Your task to perform on an android device: Open Google Maps and go to "Timeline" Image 0: 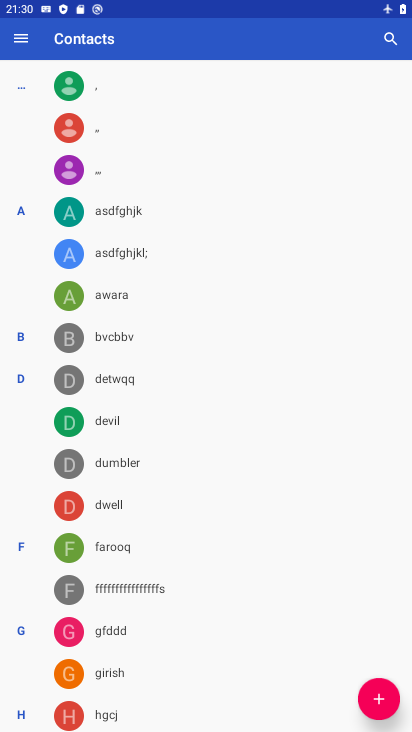
Step 0: press home button
Your task to perform on an android device: Open Google Maps and go to "Timeline" Image 1: 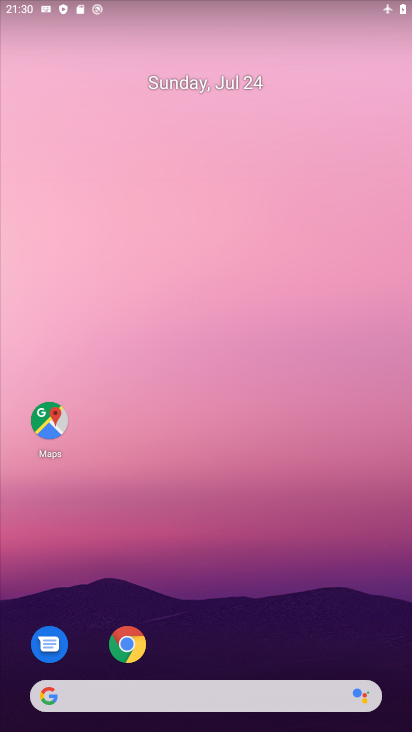
Step 1: click (50, 423)
Your task to perform on an android device: Open Google Maps and go to "Timeline" Image 2: 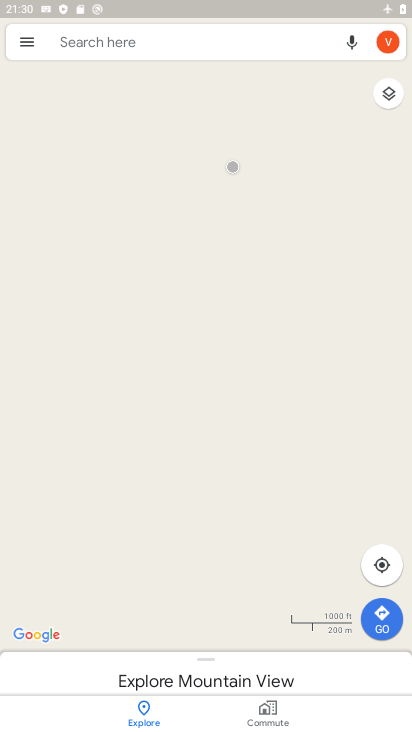
Step 2: click (28, 43)
Your task to perform on an android device: Open Google Maps and go to "Timeline" Image 3: 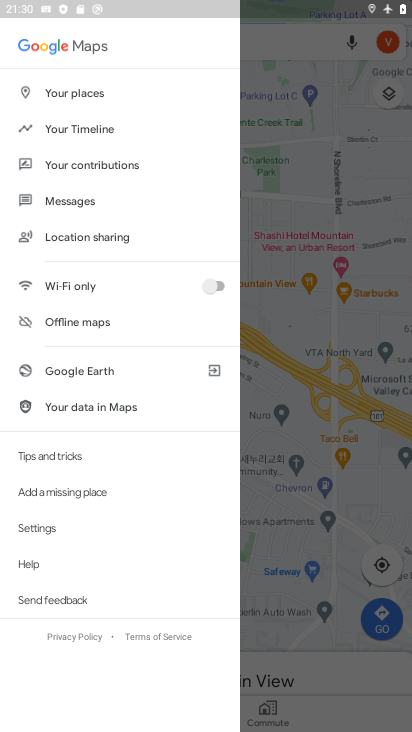
Step 3: click (76, 131)
Your task to perform on an android device: Open Google Maps and go to "Timeline" Image 4: 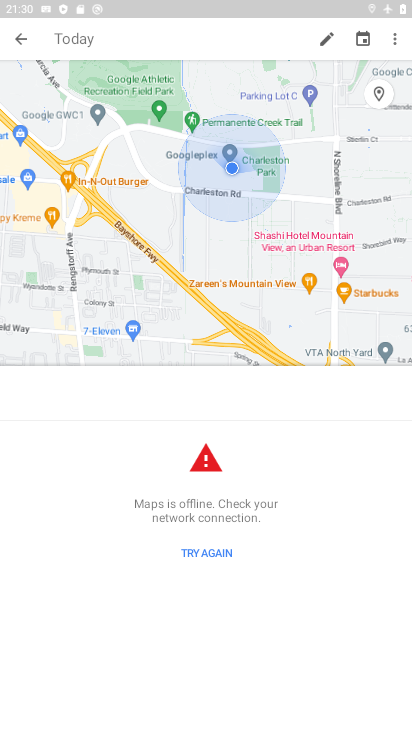
Step 4: click (208, 549)
Your task to perform on an android device: Open Google Maps and go to "Timeline" Image 5: 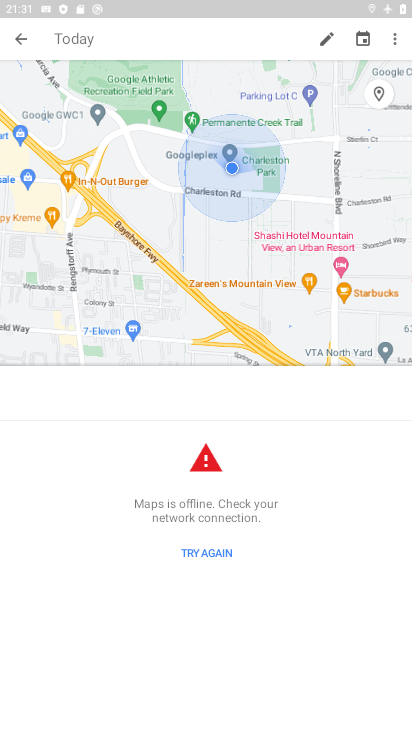
Step 5: task complete